Your task to perform on an android device: turn on translation in the chrome app Image 0: 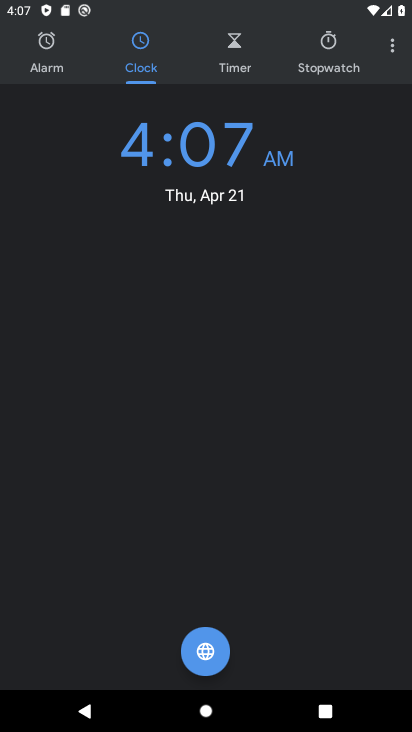
Step 0: press home button
Your task to perform on an android device: turn on translation in the chrome app Image 1: 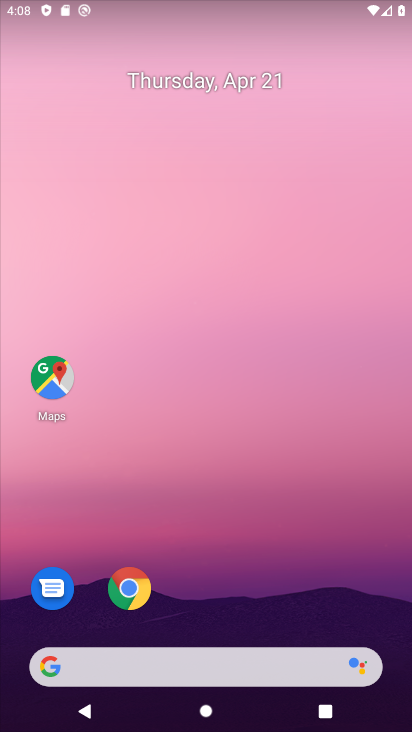
Step 1: click (130, 597)
Your task to perform on an android device: turn on translation in the chrome app Image 2: 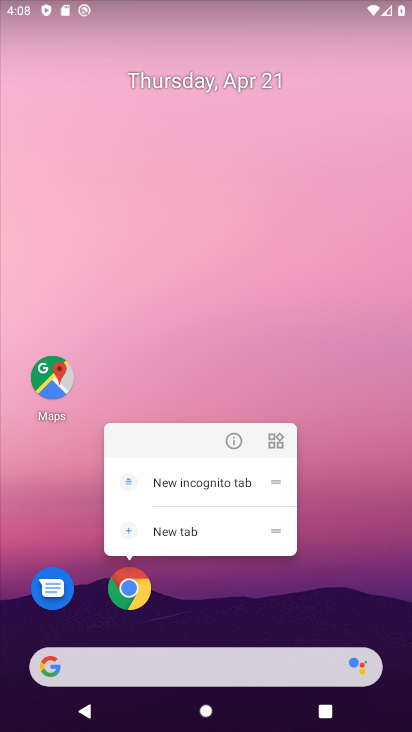
Step 2: click (133, 596)
Your task to perform on an android device: turn on translation in the chrome app Image 3: 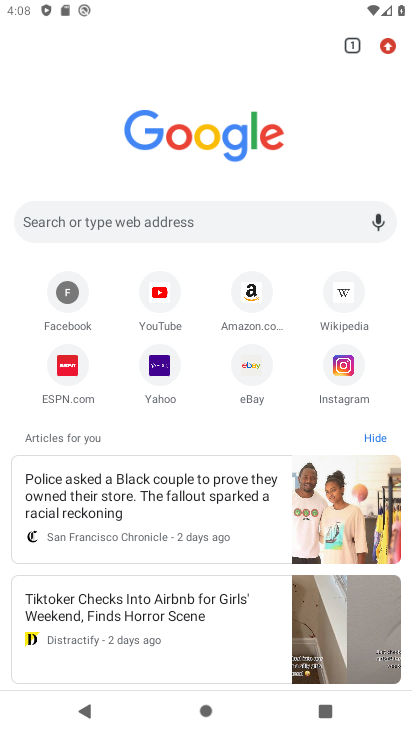
Step 3: drag from (389, 50) to (261, 435)
Your task to perform on an android device: turn on translation in the chrome app Image 4: 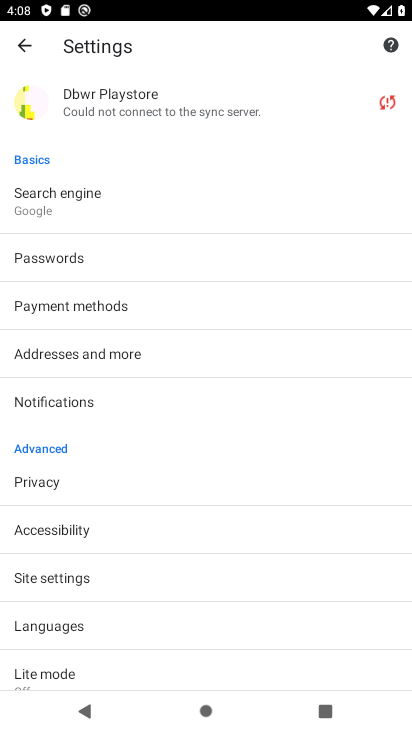
Step 4: drag from (71, 653) to (89, 321)
Your task to perform on an android device: turn on translation in the chrome app Image 5: 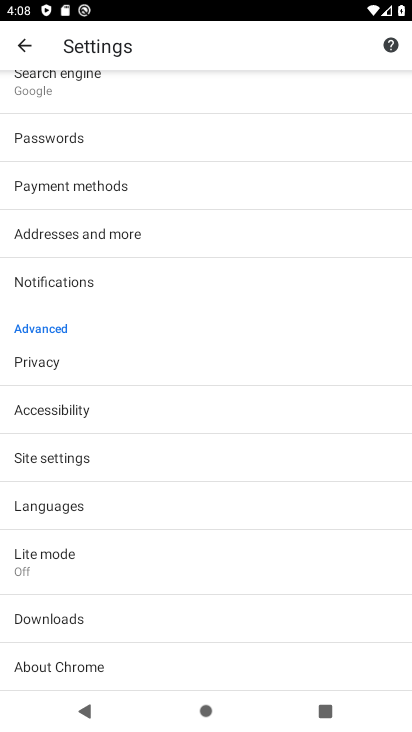
Step 5: click (116, 507)
Your task to perform on an android device: turn on translation in the chrome app Image 6: 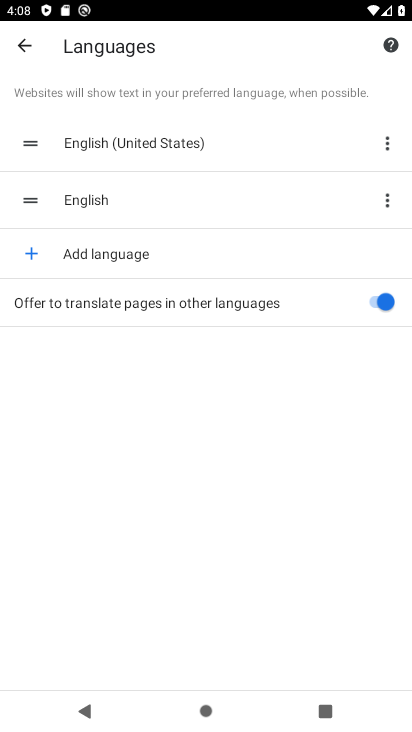
Step 6: click (376, 303)
Your task to perform on an android device: turn on translation in the chrome app Image 7: 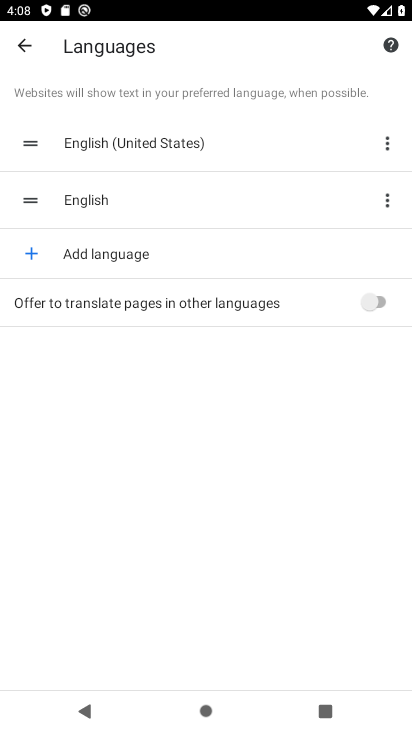
Step 7: task complete